Your task to perform on an android device: check storage Image 0: 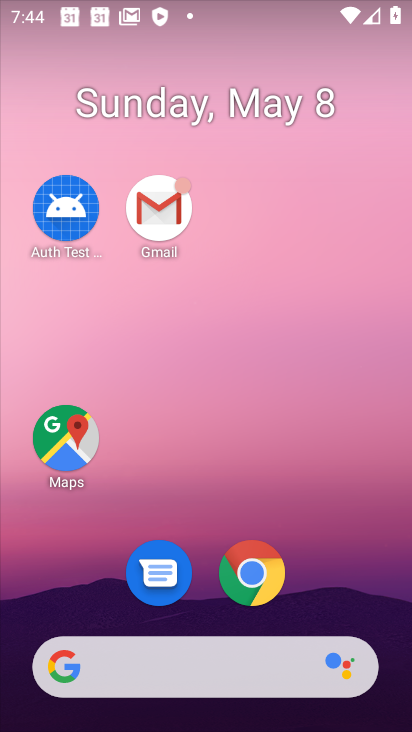
Step 0: click (334, 583)
Your task to perform on an android device: check storage Image 1: 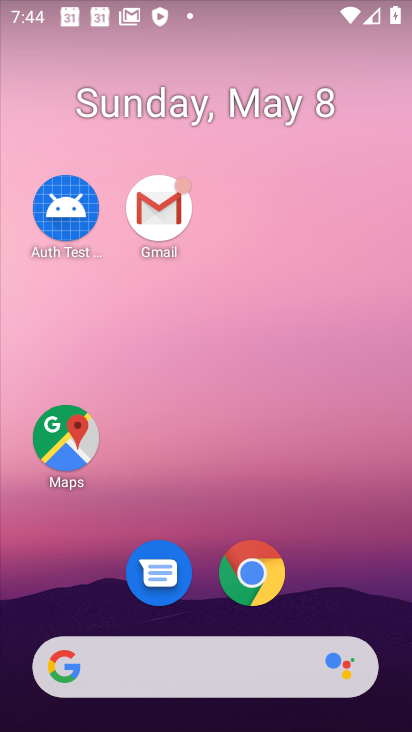
Step 1: click (212, 89)
Your task to perform on an android device: check storage Image 2: 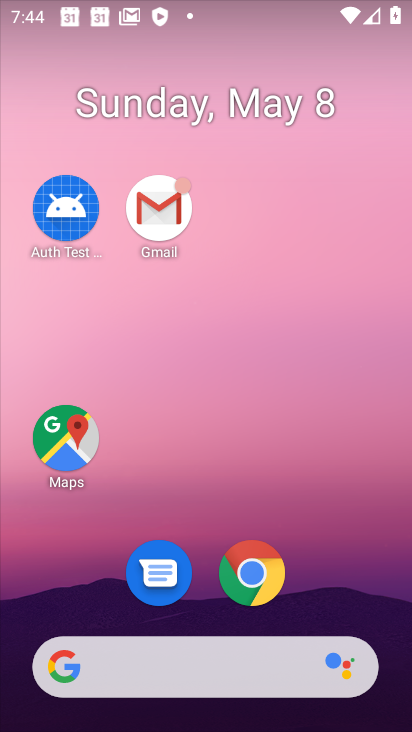
Step 2: click (131, 62)
Your task to perform on an android device: check storage Image 3: 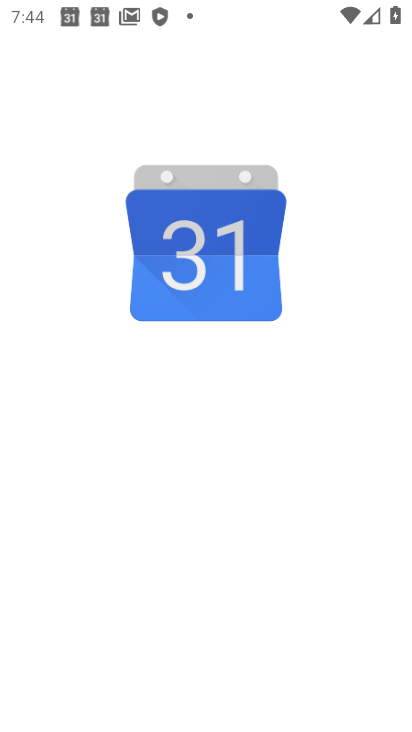
Step 3: drag from (327, 514) to (272, 137)
Your task to perform on an android device: check storage Image 4: 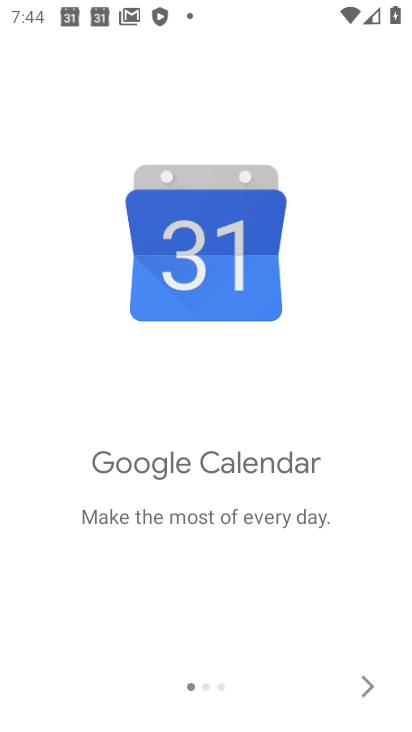
Step 4: drag from (319, 529) to (257, 89)
Your task to perform on an android device: check storage Image 5: 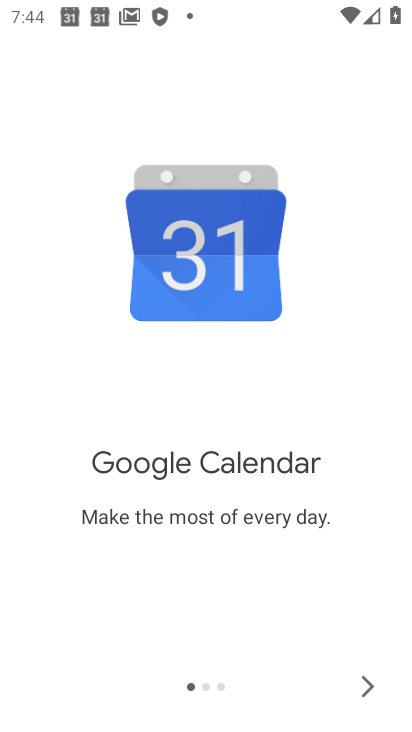
Step 5: click (189, 19)
Your task to perform on an android device: check storage Image 6: 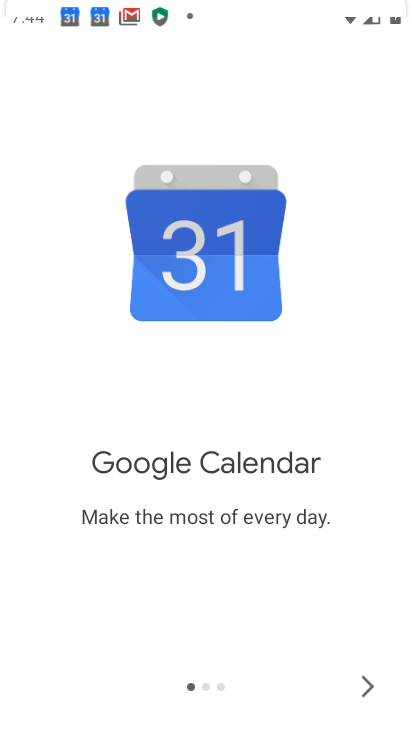
Step 6: click (90, 10)
Your task to perform on an android device: check storage Image 7: 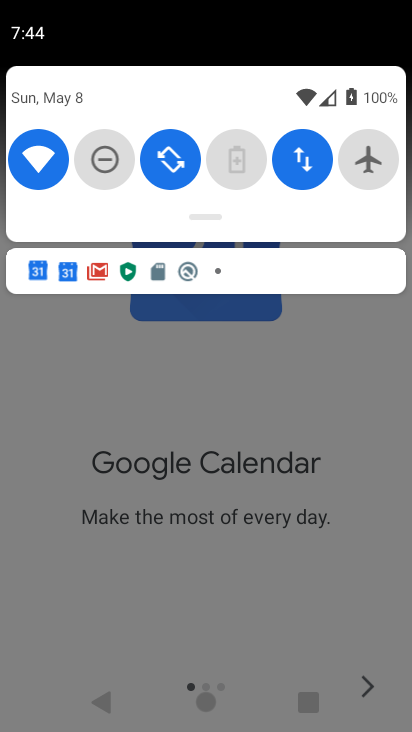
Step 7: drag from (275, 357) to (273, 10)
Your task to perform on an android device: check storage Image 8: 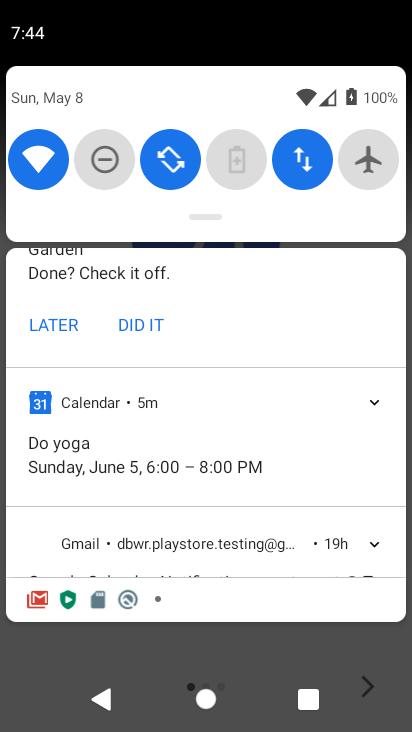
Step 8: drag from (241, 446) to (176, 29)
Your task to perform on an android device: check storage Image 9: 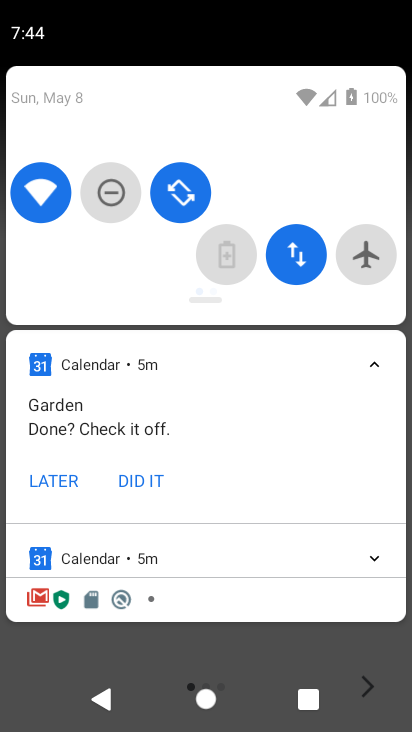
Step 9: drag from (327, 527) to (156, 10)
Your task to perform on an android device: check storage Image 10: 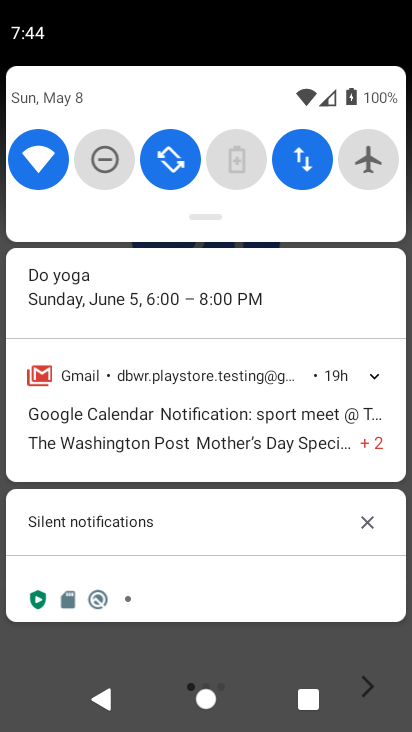
Step 10: drag from (318, 497) to (229, 7)
Your task to perform on an android device: check storage Image 11: 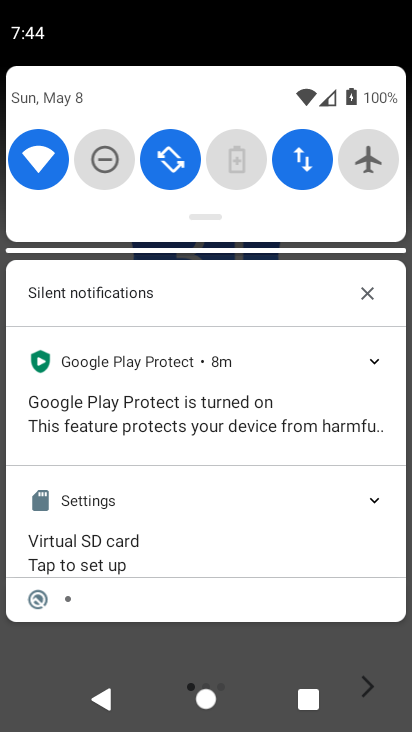
Step 11: click (365, 689)
Your task to perform on an android device: check storage Image 12: 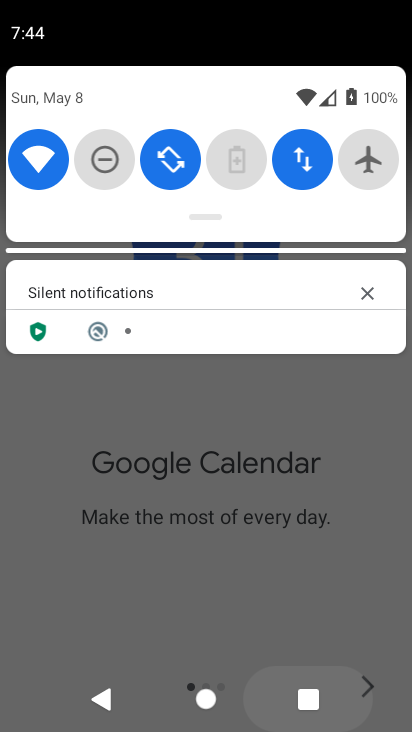
Step 12: click (368, 689)
Your task to perform on an android device: check storage Image 13: 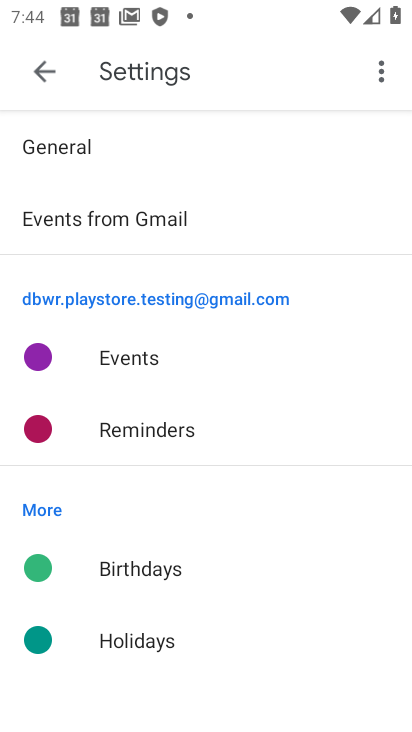
Step 13: press home button
Your task to perform on an android device: check storage Image 14: 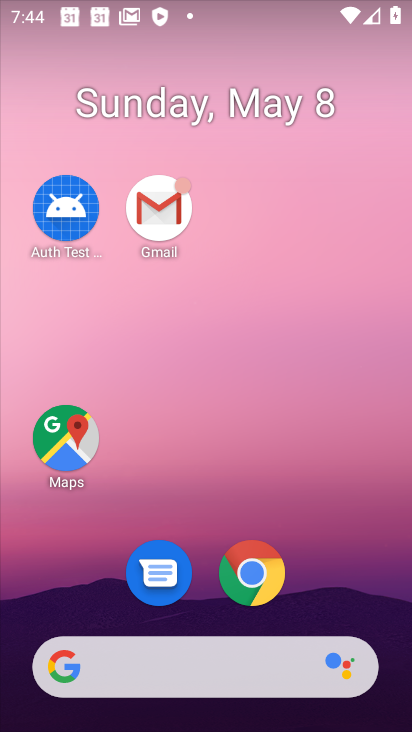
Step 14: drag from (308, 468) to (208, 35)
Your task to perform on an android device: check storage Image 15: 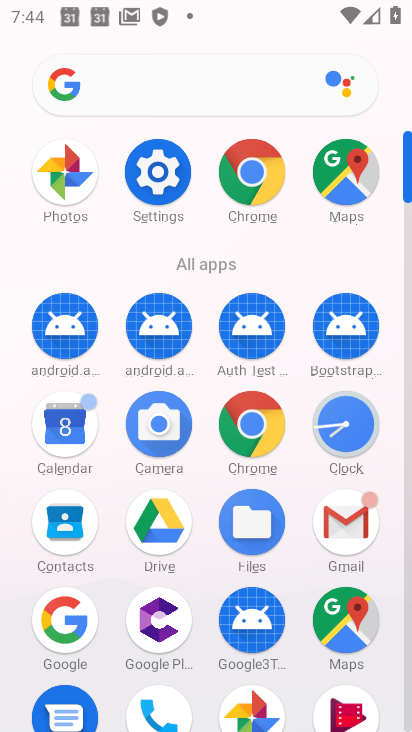
Step 15: click (183, 197)
Your task to perform on an android device: check storage Image 16: 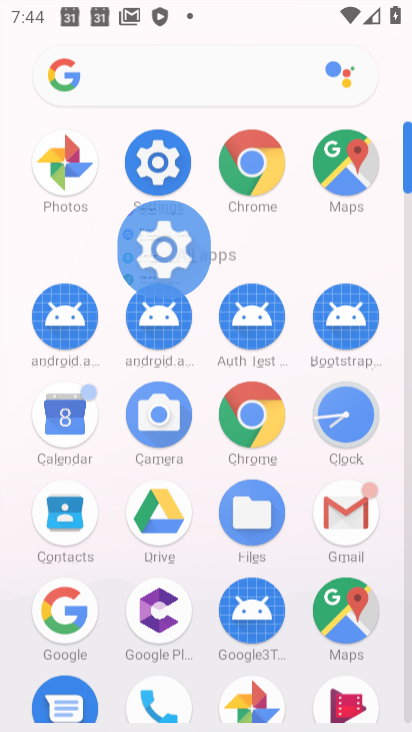
Step 16: click (76, 5)
Your task to perform on an android device: check storage Image 17: 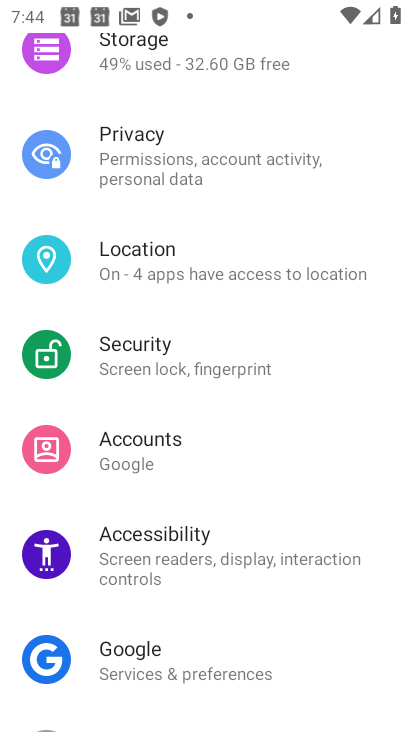
Step 17: click (153, 62)
Your task to perform on an android device: check storage Image 18: 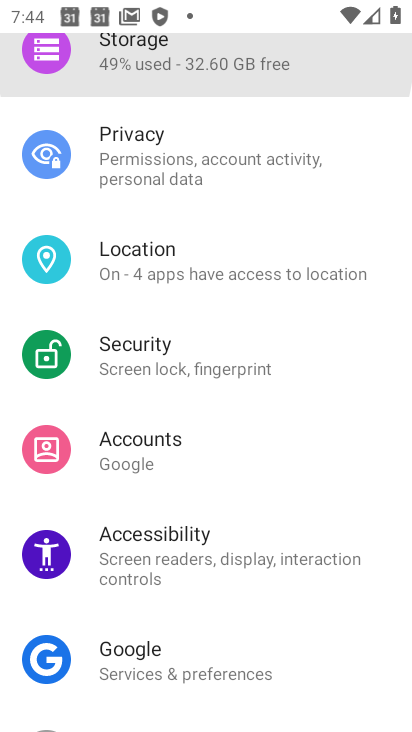
Step 18: click (153, 62)
Your task to perform on an android device: check storage Image 19: 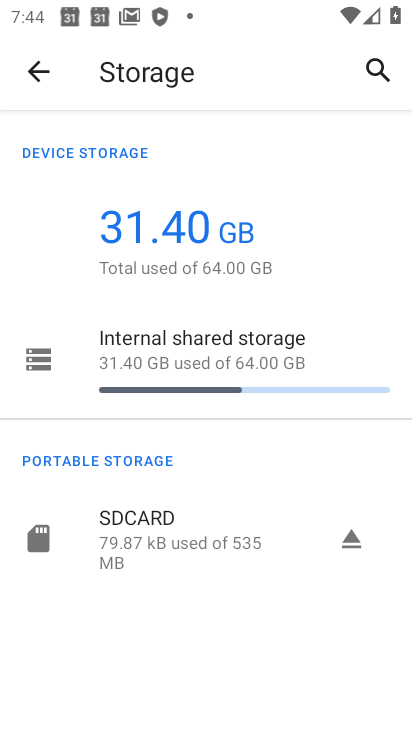
Step 19: task complete